Your task to perform on an android device: Show me recent news Image 0: 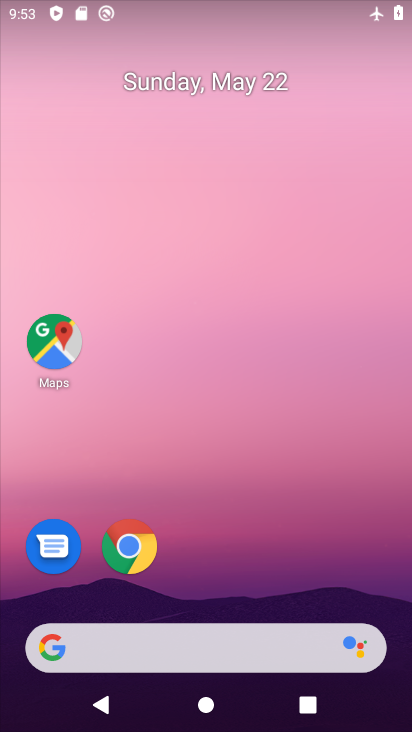
Step 0: drag from (240, 563) to (169, 3)
Your task to perform on an android device: Show me recent news Image 1: 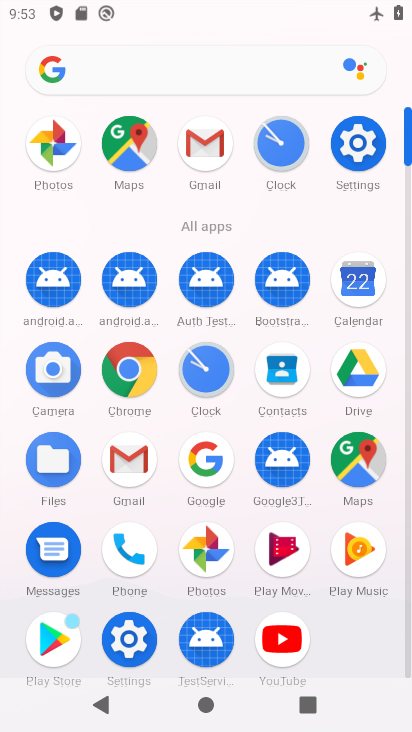
Step 1: drag from (4, 554) to (25, 241)
Your task to perform on an android device: Show me recent news Image 2: 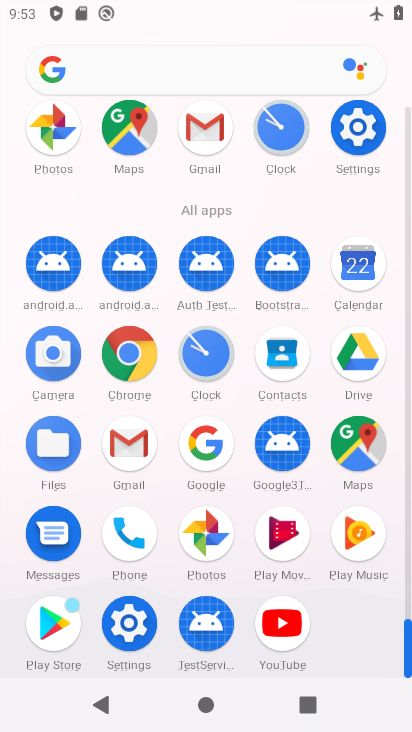
Step 2: click (130, 351)
Your task to perform on an android device: Show me recent news Image 3: 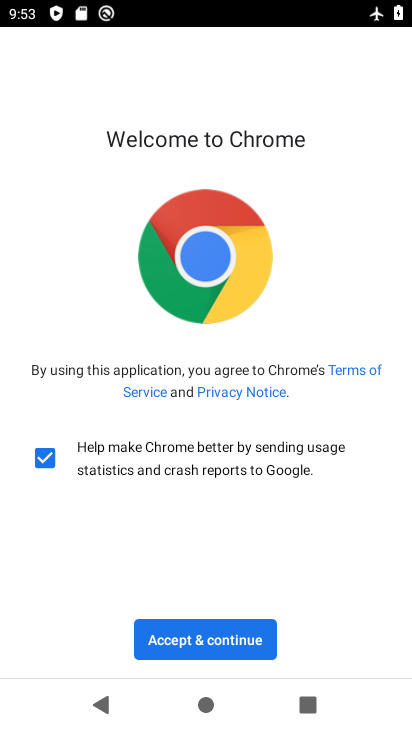
Step 3: click (194, 645)
Your task to perform on an android device: Show me recent news Image 4: 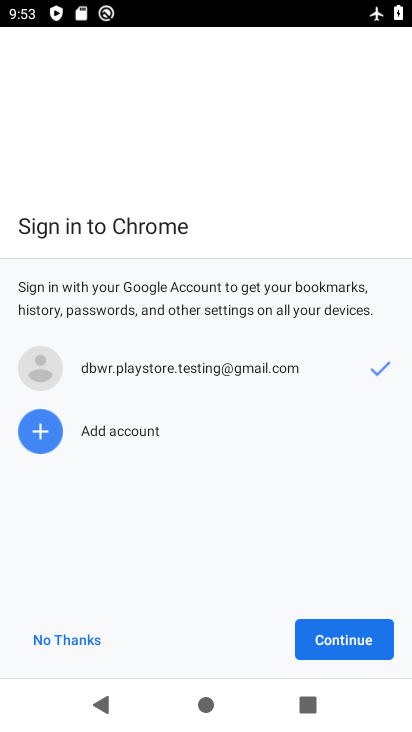
Step 4: click (323, 614)
Your task to perform on an android device: Show me recent news Image 5: 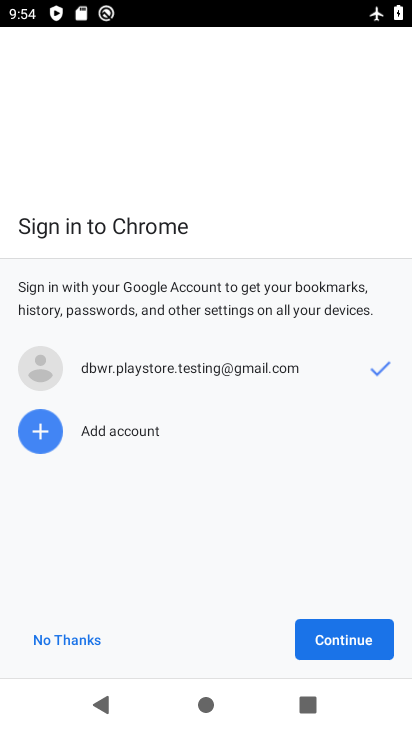
Step 5: click (343, 638)
Your task to perform on an android device: Show me recent news Image 6: 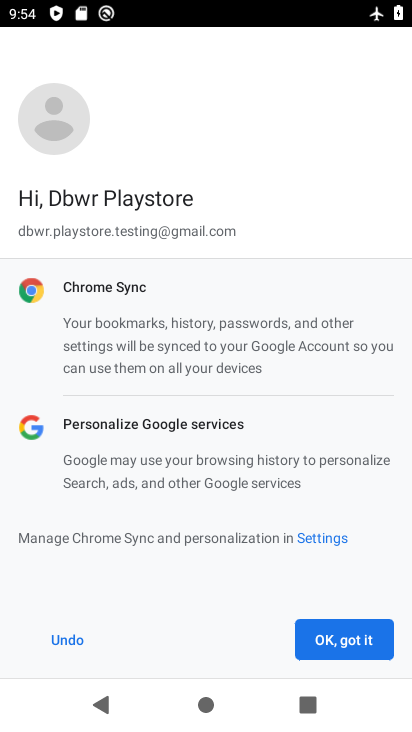
Step 6: click (343, 638)
Your task to perform on an android device: Show me recent news Image 7: 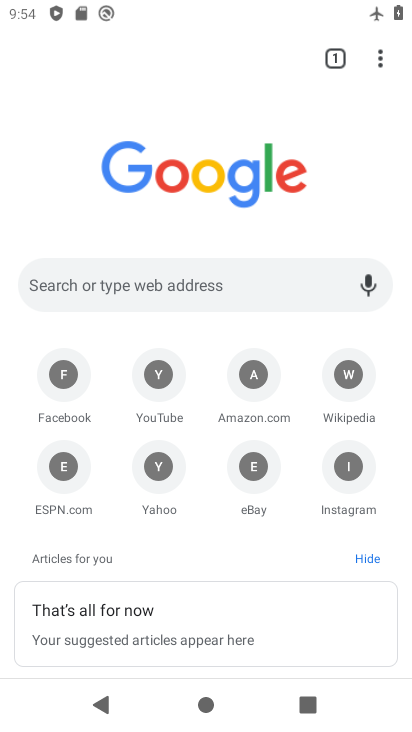
Step 7: click (171, 276)
Your task to perform on an android device: Show me recent news Image 8: 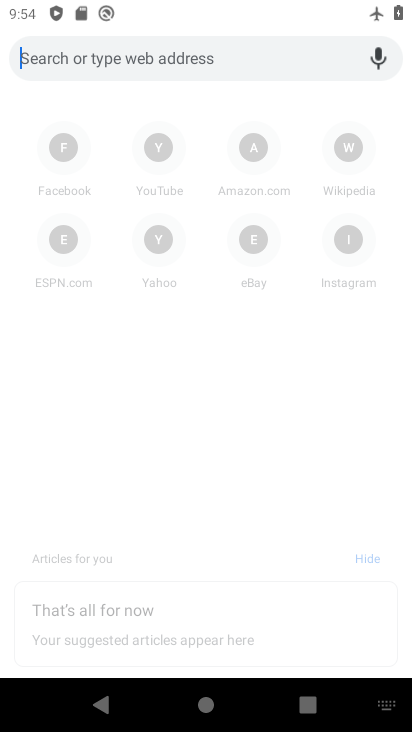
Step 8: type "Show me recent news"
Your task to perform on an android device: Show me recent news Image 9: 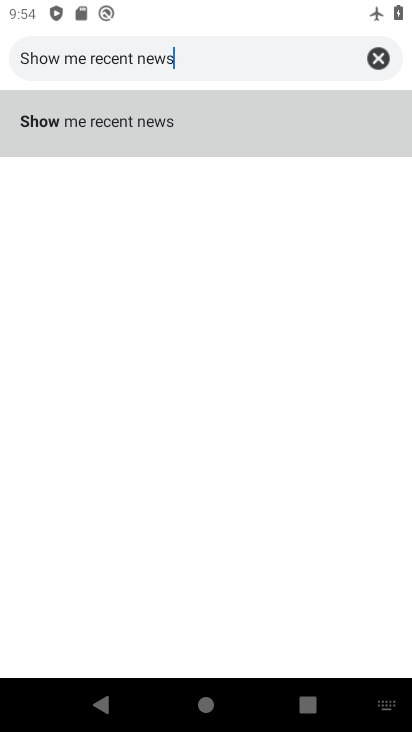
Step 9: type ""
Your task to perform on an android device: Show me recent news Image 10: 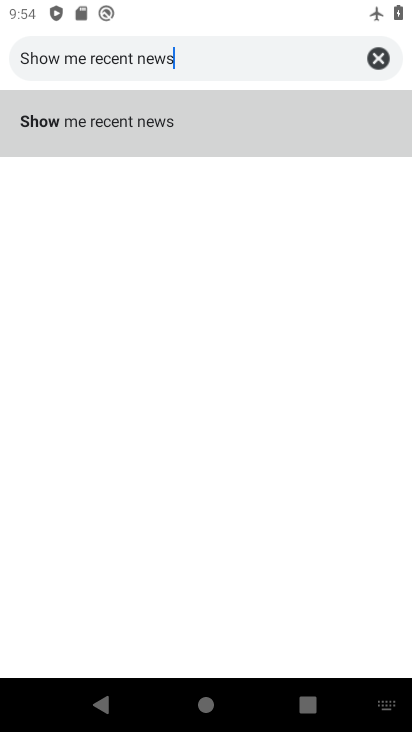
Step 10: click (109, 124)
Your task to perform on an android device: Show me recent news Image 11: 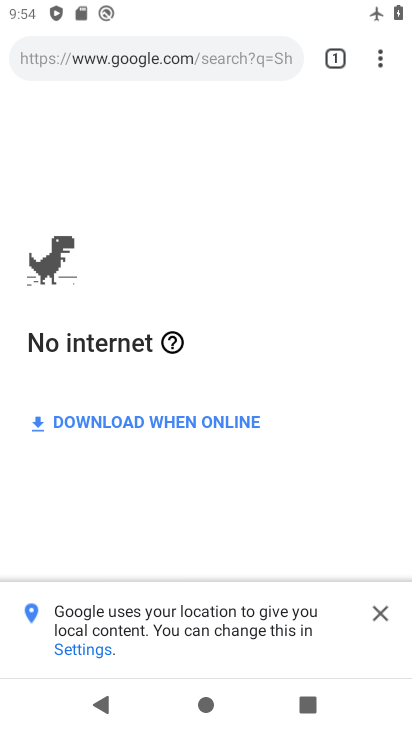
Step 11: task complete